Your task to perform on an android device: refresh tabs in the chrome app Image 0: 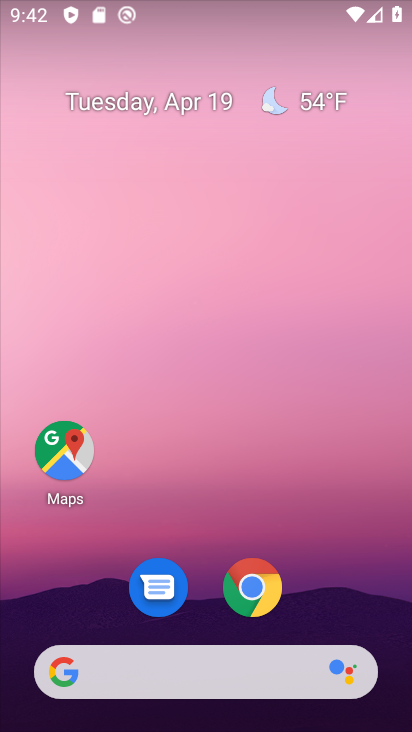
Step 0: click (251, 600)
Your task to perform on an android device: refresh tabs in the chrome app Image 1: 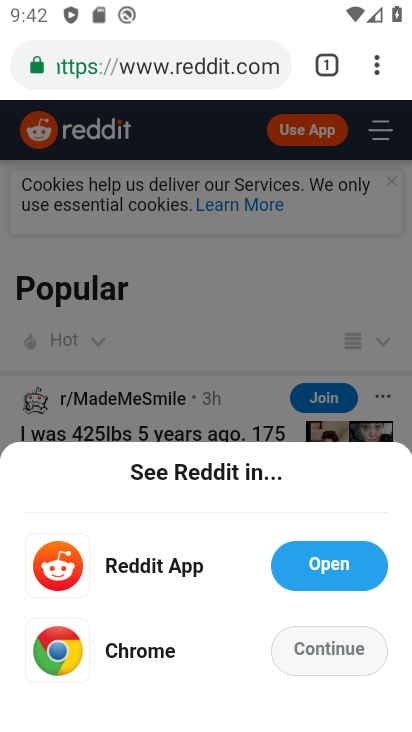
Step 1: click (382, 68)
Your task to perform on an android device: refresh tabs in the chrome app Image 2: 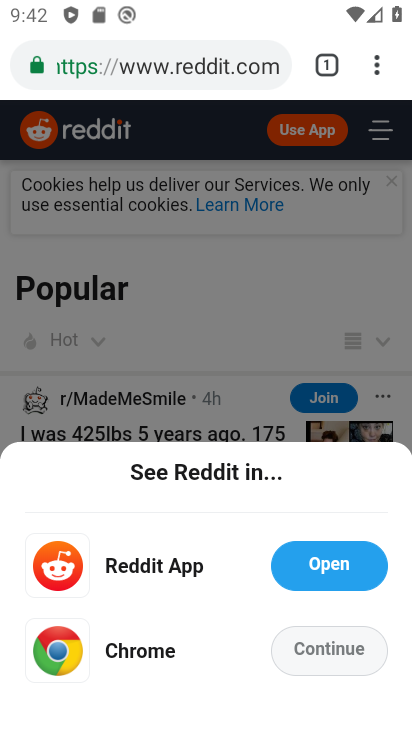
Step 2: task complete